Your task to perform on an android device: turn off javascript in the chrome app Image 0: 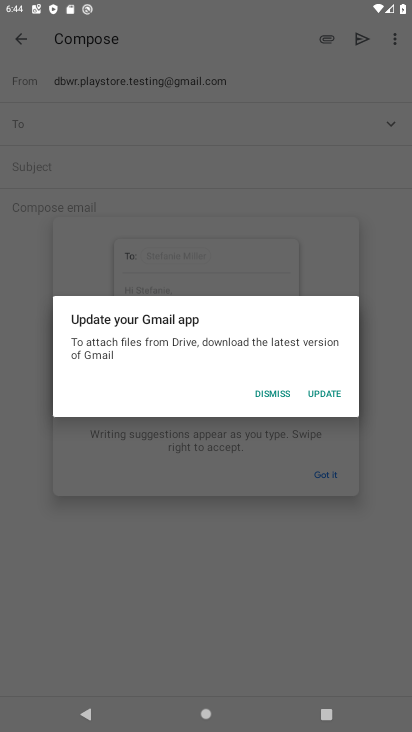
Step 0: press home button
Your task to perform on an android device: turn off javascript in the chrome app Image 1: 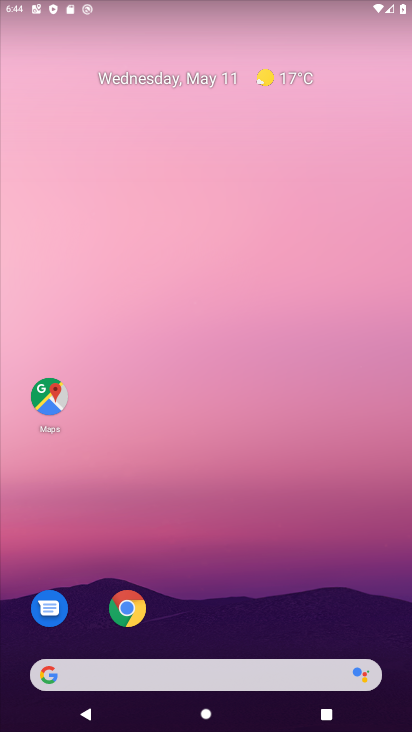
Step 1: click (143, 605)
Your task to perform on an android device: turn off javascript in the chrome app Image 2: 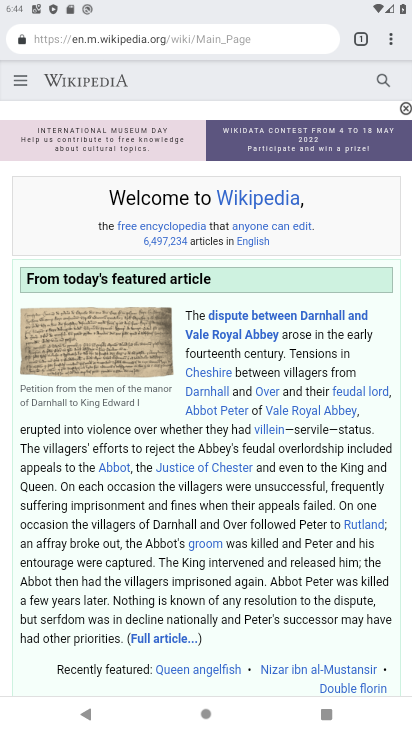
Step 2: click (396, 37)
Your task to perform on an android device: turn off javascript in the chrome app Image 3: 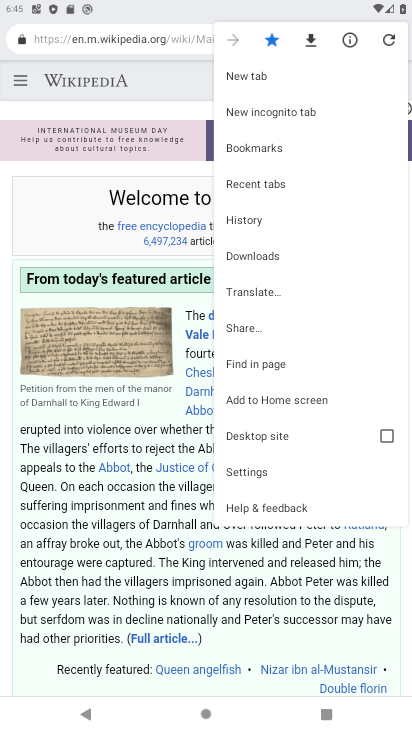
Step 3: click (274, 469)
Your task to perform on an android device: turn off javascript in the chrome app Image 4: 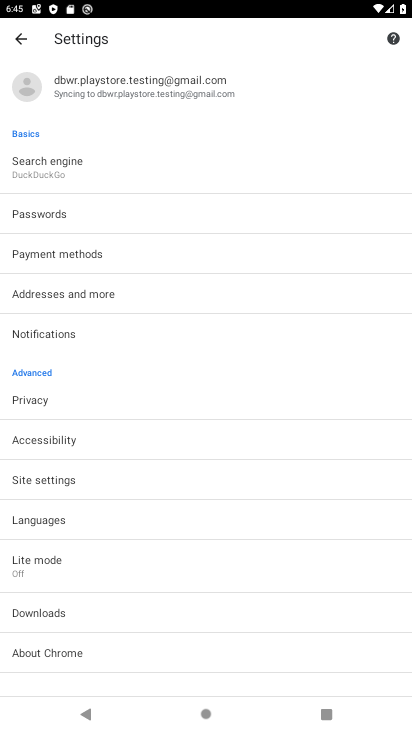
Step 4: drag from (170, 558) to (194, 413)
Your task to perform on an android device: turn off javascript in the chrome app Image 5: 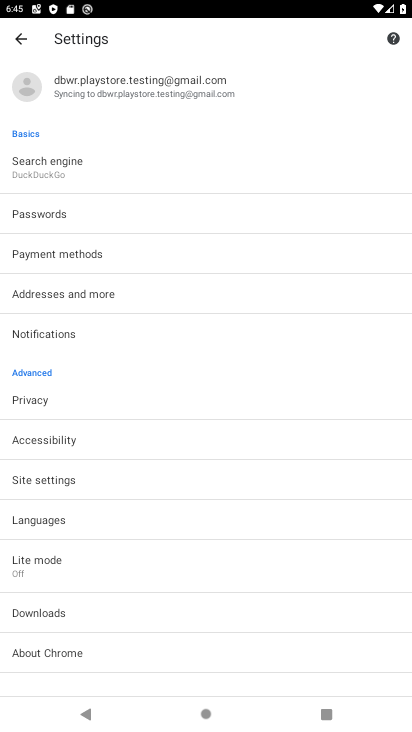
Step 5: click (101, 575)
Your task to perform on an android device: turn off javascript in the chrome app Image 6: 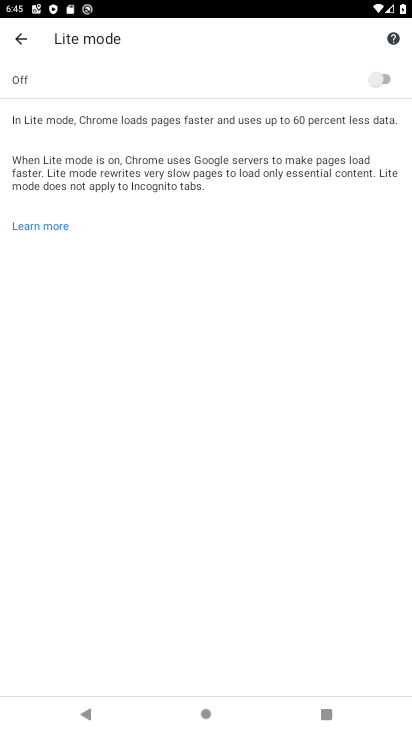
Step 6: click (22, 33)
Your task to perform on an android device: turn off javascript in the chrome app Image 7: 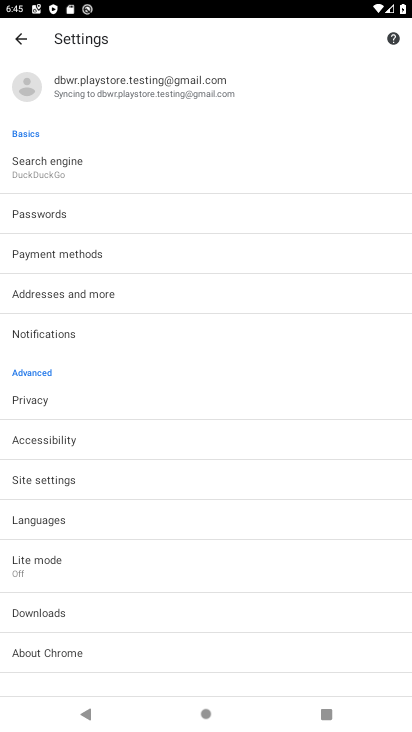
Step 7: click (110, 479)
Your task to perform on an android device: turn off javascript in the chrome app Image 8: 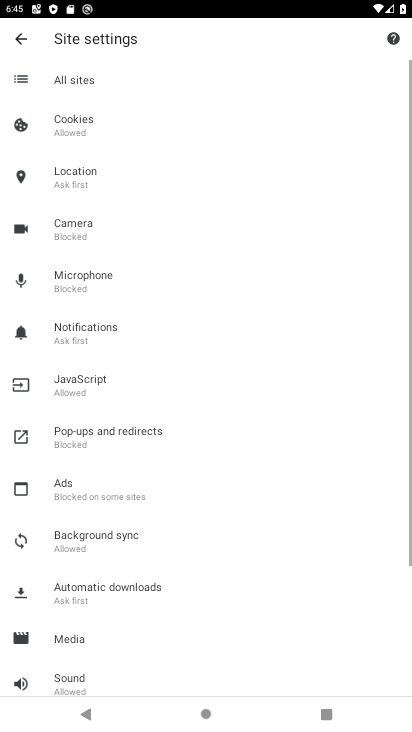
Step 8: drag from (129, 593) to (137, 482)
Your task to perform on an android device: turn off javascript in the chrome app Image 9: 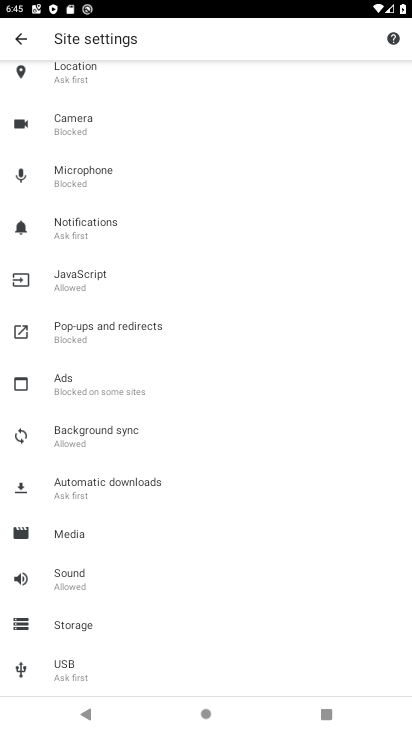
Step 9: click (150, 289)
Your task to perform on an android device: turn off javascript in the chrome app Image 10: 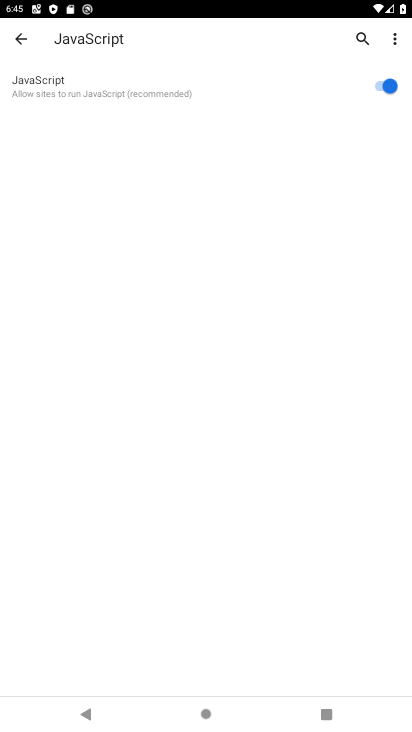
Step 10: click (373, 78)
Your task to perform on an android device: turn off javascript in the chrome app Image 11: 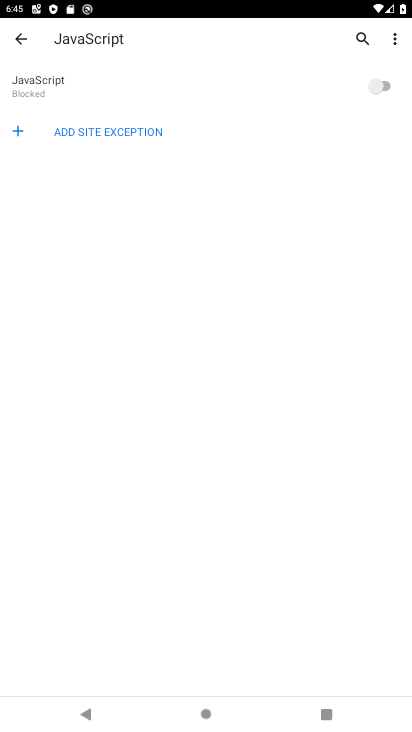
Step 11: task complete